Your task to perform on an android device: change the clock display to digital Image 0: 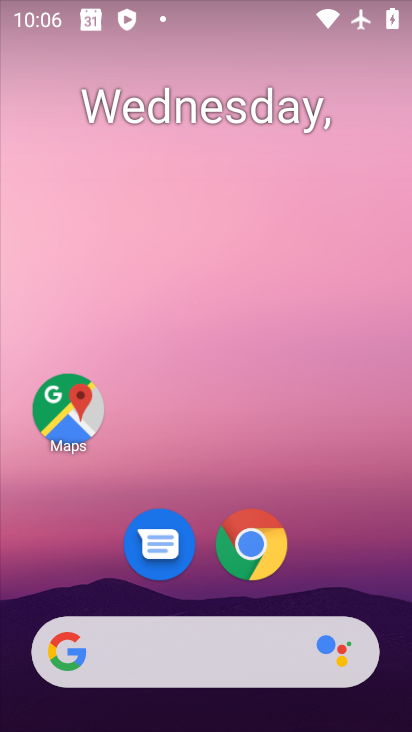
Step 0: drag from (305, 584) to (275, 43)
Your task to perform on an android device: change the clock display to digital Image 1: 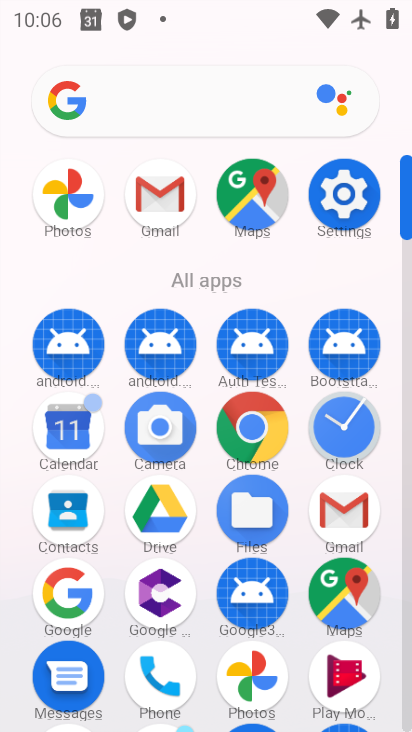
Step 1: click (332, 417)
Your task to perform on an android device: change the clock display to digital Image 2: 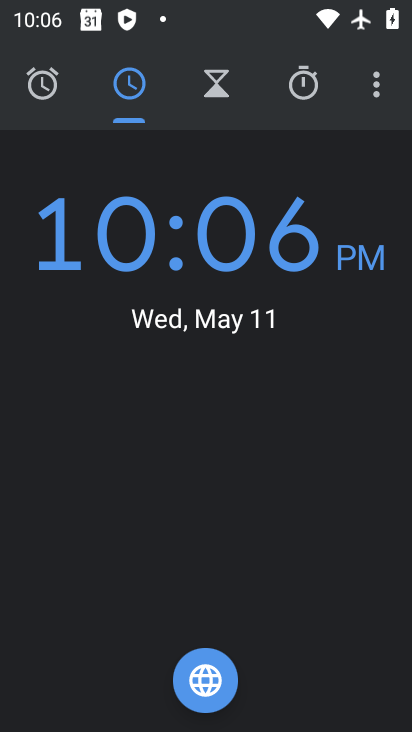
Step 2: click (372, 101)
Your task to perform on an android device: change the clock display to digital Image 3: 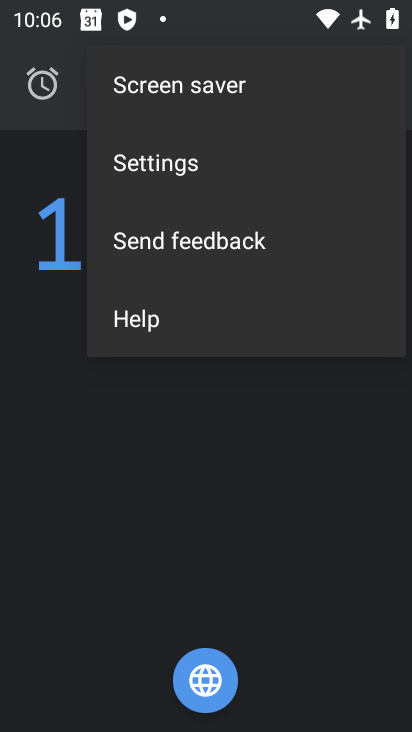
Step 3: click (246, 163)
Your task to perform on an android device: change the clock display to digital Image 4: 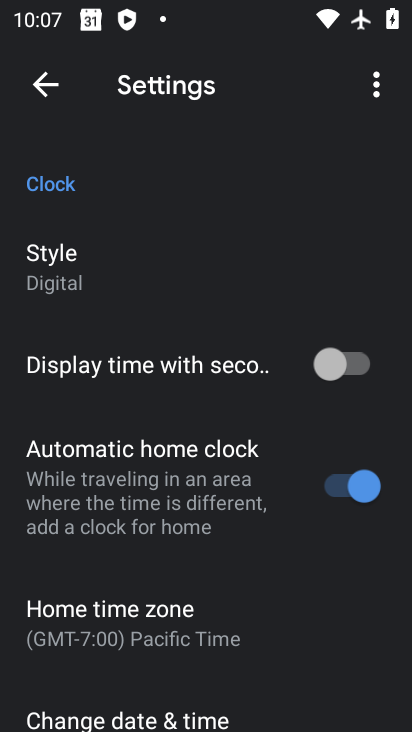
Step 4: task complete